Your task to perform on an android device: View the shopping cart on costco.com. Search for "corsair k70" on costco.com, select the first entry, and add it to the cart. Image 0: 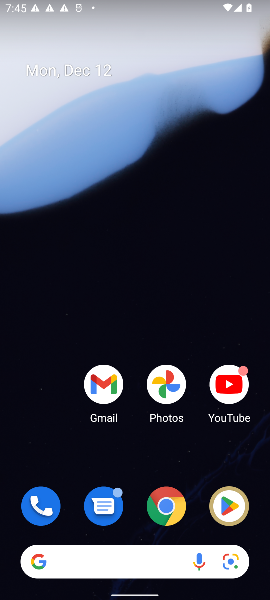
Step 0: click (130, 556)
Your task to perform on an android device: View the shopping cart on costco.com. Search for "corsair k70" on costco.com, select the first entry, and add it to the cart. Image 1: 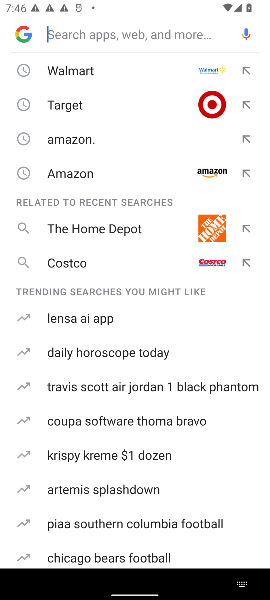
Step 1: click (81, 264)
Your task to perform on an android device: View the shopping cart on costco.com. Search for "corsair k70" on costco.com, select the first entry, and add it to the cart. Image 2: 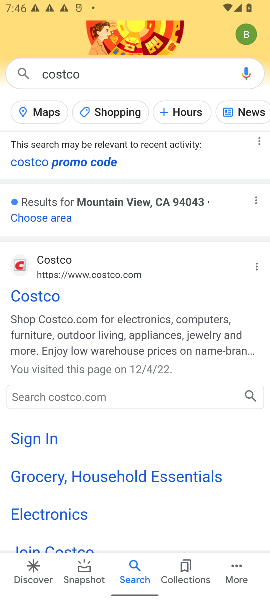
Step 2: click (57, 292)
Your task to perform on an android device: View the shopping cart on costco.com. Search for "corsair k70" on costco.com, select the first entry, and add it to the cart. Image 3: 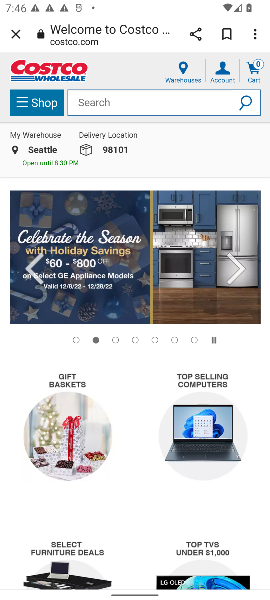
Step 3: click (159, 110)
Your task to perform on an android device: View the shopping cart on costco.com. Search for "corsair k70" on costco.com, select the first entry, and add it to the cart. Image 4: 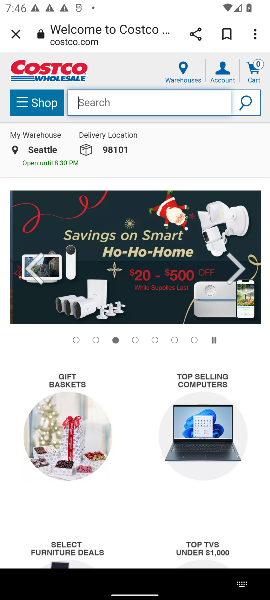
Step 4: type "corsair"
Your task to perform on an android device: View the shopping cart on costco.com. Search for "corsair k70" on costco.com, select the first entry, and add it to the cart. Image 5: 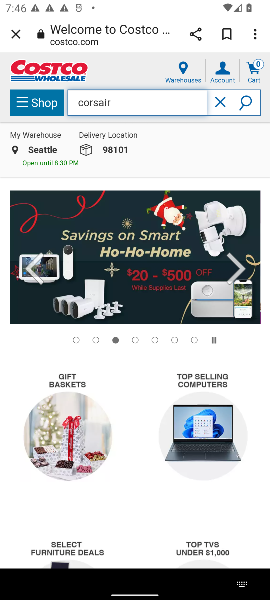
Step 5: click (242, 105)
Your task to perform on an android device: View the shopping cart on costco.com. Search for "corsair k70" on costco.com, select the first entry, and add it to the cart. Image 6: 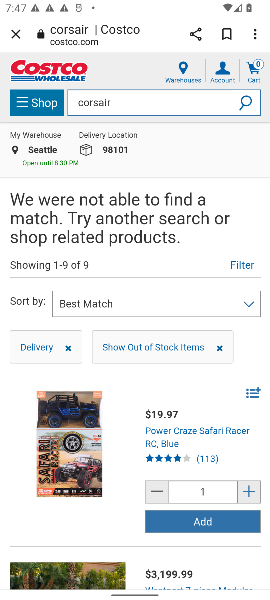
Step 6: task complete